Your task to perform on an android device: open the mobile data screen to see how much data has been used Image 0: 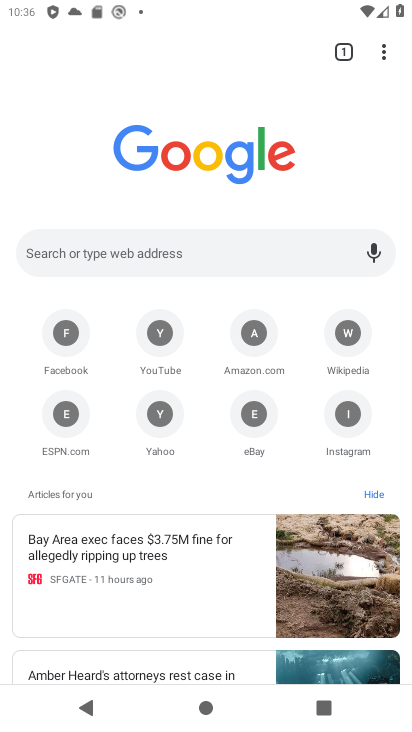
Step 0: press home button
Your task to perform on an android device: open the mobile data screen to see how much data has been used Image 1: 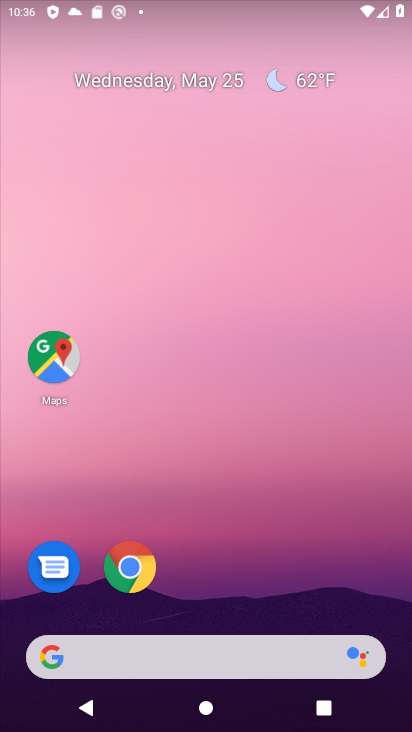
Step 1: drag from (392, 595) to (243, 105)
Your task to perform on an android device: open the mobile data screen to see how much data has been used Image 2: 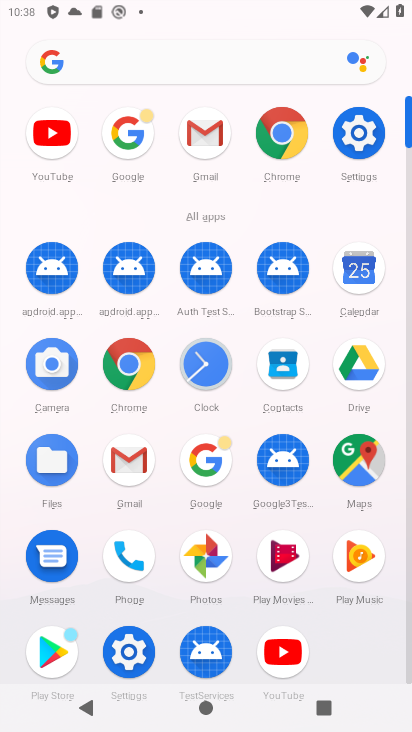
Step 2: click (369, 140)
Your task to perform on an android device: open the mobile data screen to see how much data has been used Image 3: 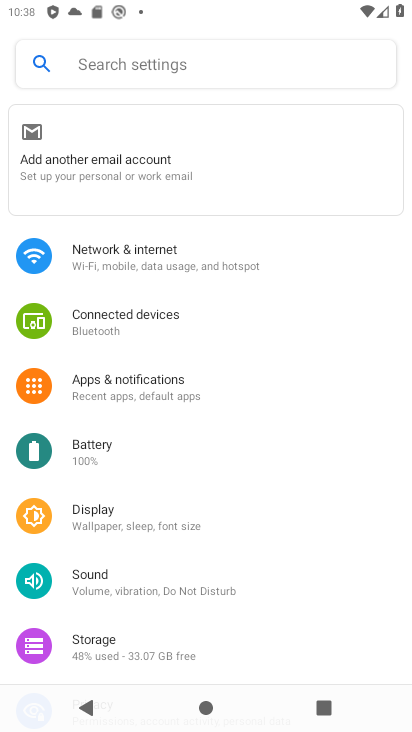
Step 3: click (183, 277)
Your task to perform on an android device: open the mobile data screen to see how much data has been used Image 4: 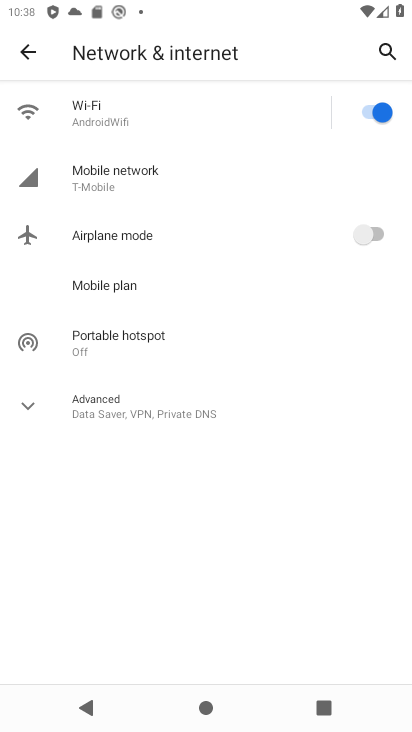
Step 4: click (133, 174)
Your task to perform on an android device: open the mobile data screen to see how much data has been used Image 5: 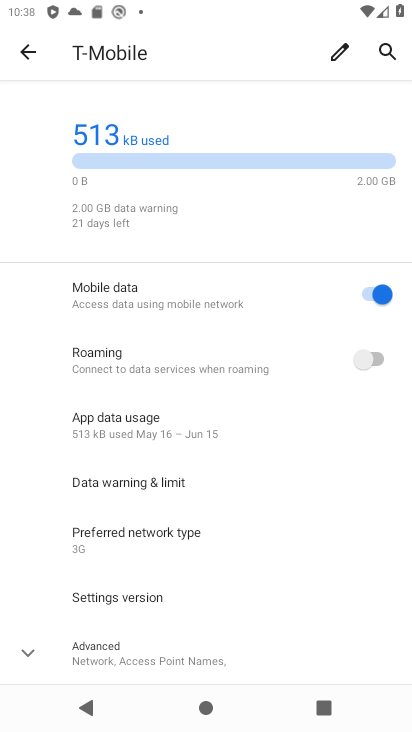
Step 5: click (156, 431)
Your task to perform on an android device: open the mobile data screen to see how much data has been used Image 6: 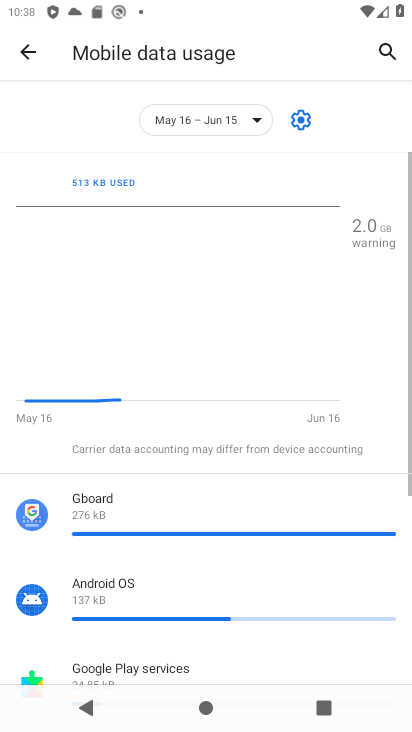
Step 6: task complete